Your task to perform on an android device: change alarm snooze length Image 0: 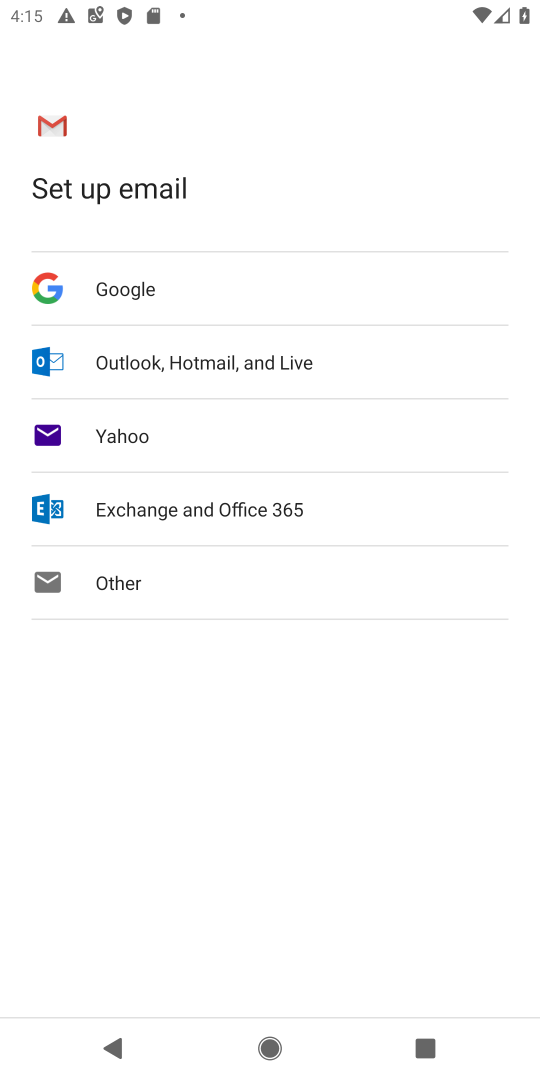
Step 0: press home button
Your task to perform on an android device: change alarm snooze length Image 1: 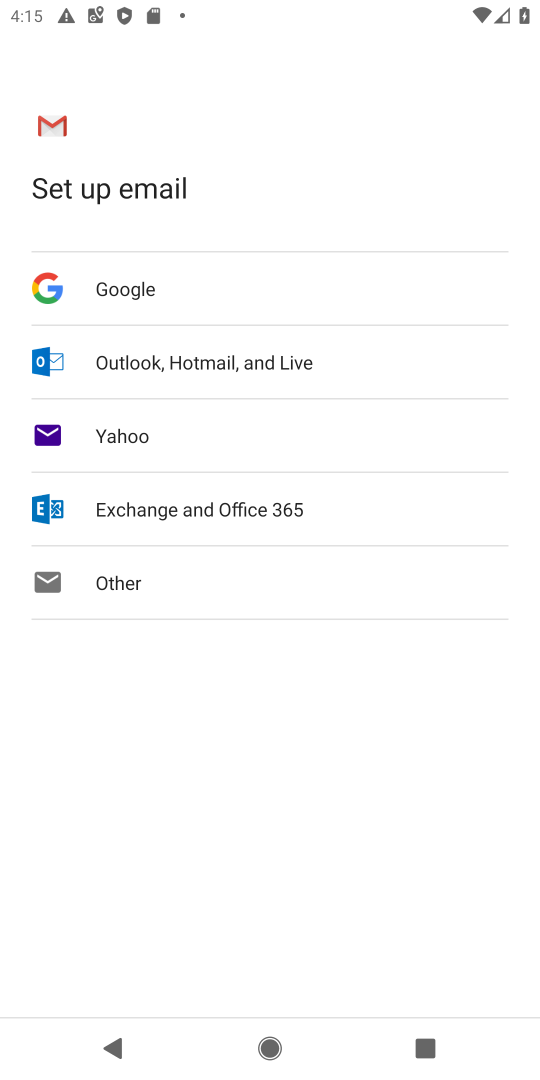
Step 1: press home button
Your task to perform on an android device: change alarm snooze length Image 2: 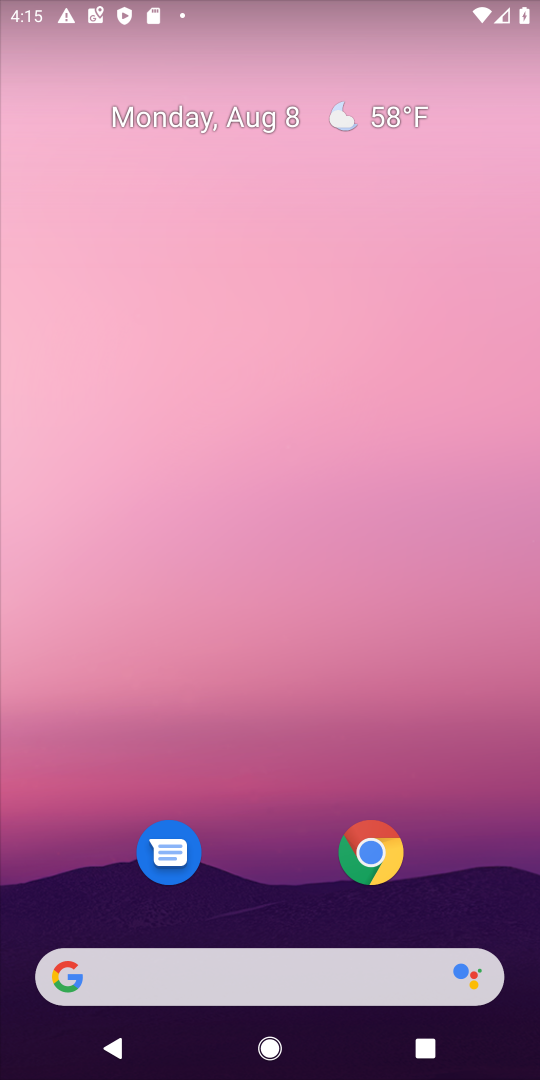
Step 2: drag from (263, 862) to (462, 67)
Your task to perform on an android device: change alarm snooze length Image 3: 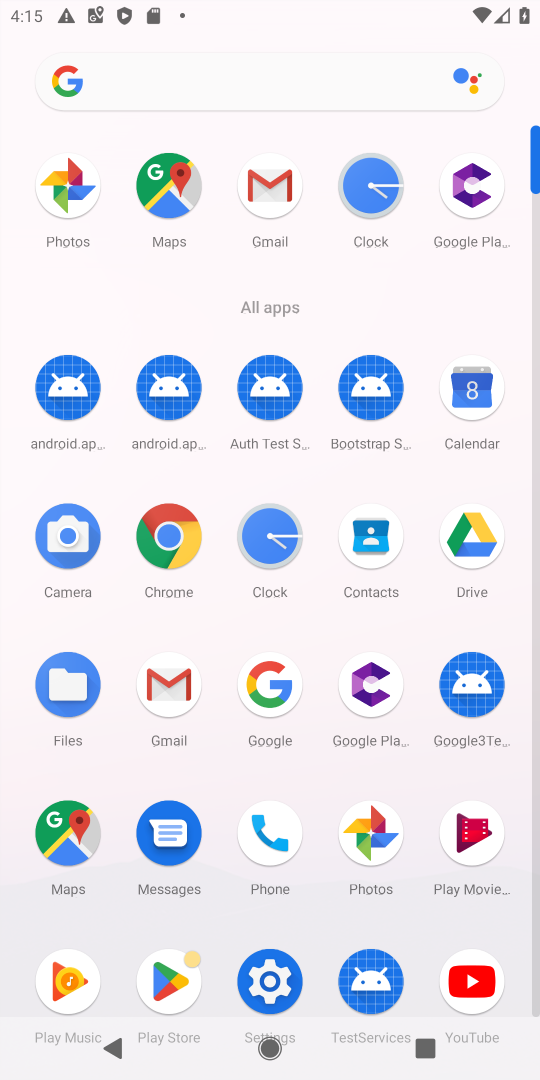
Step 3: click (268, 539)
Your task to perform on an android device: change alarm snooze length Image 4: 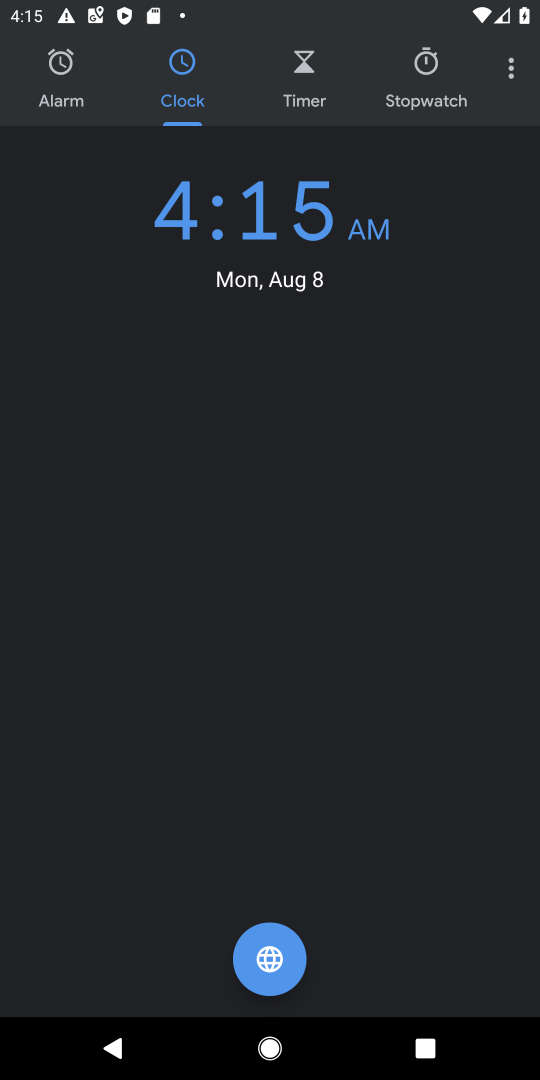
Step 4: click (519, 60)
Your task to perform on an android device: change alarm snooze length Image 5: 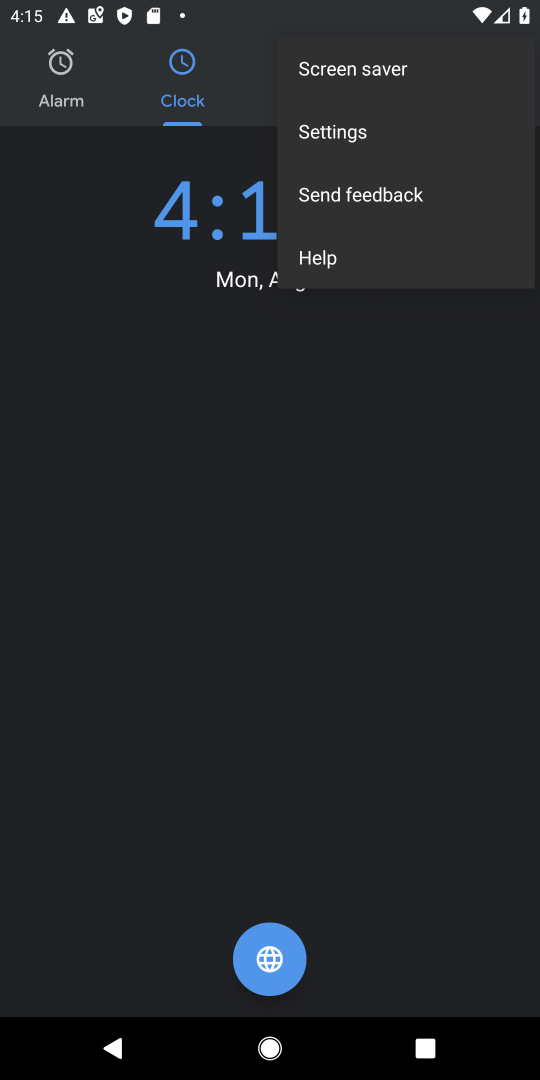
Step 5: click (369, 140)
Your task to perform on an android device: change alarm snooze length Image 6: 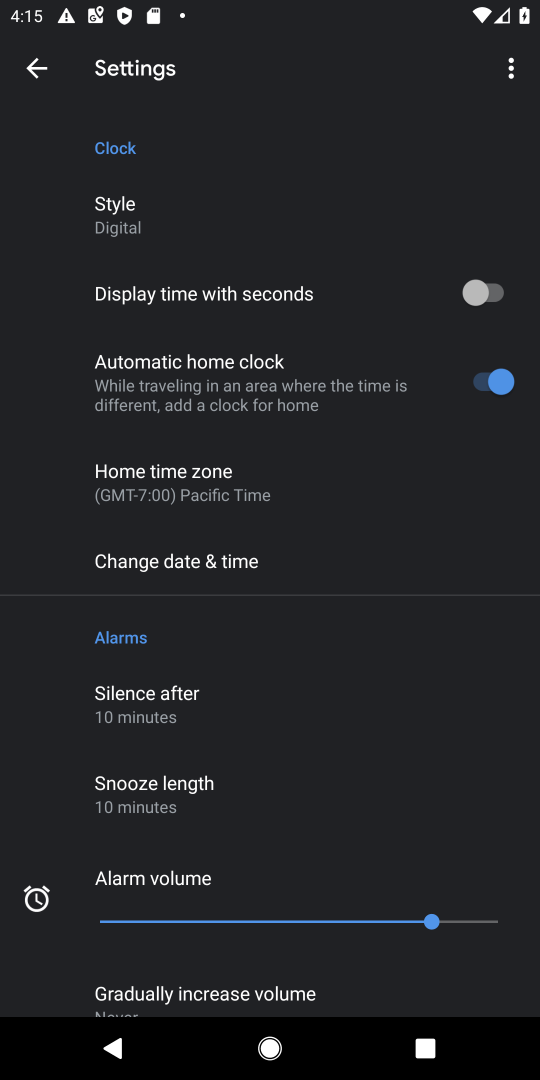
Step 6: click (158, 798)
Your task to perform on an android device: change alarm snooze length Image 7: 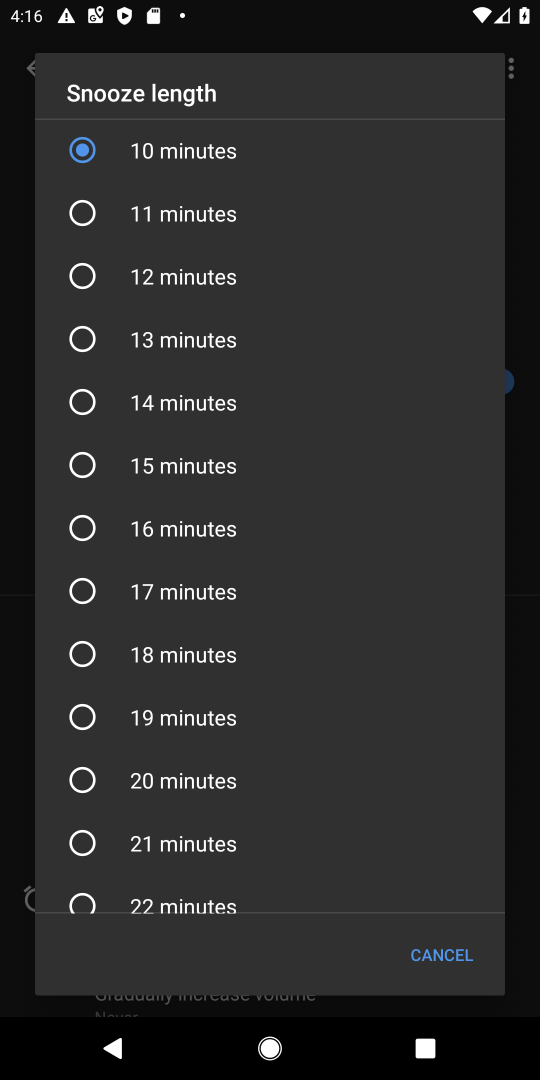
Step 7: click (153, 212)
Your task to perform on an android device: change alarm snooze length Image 8: 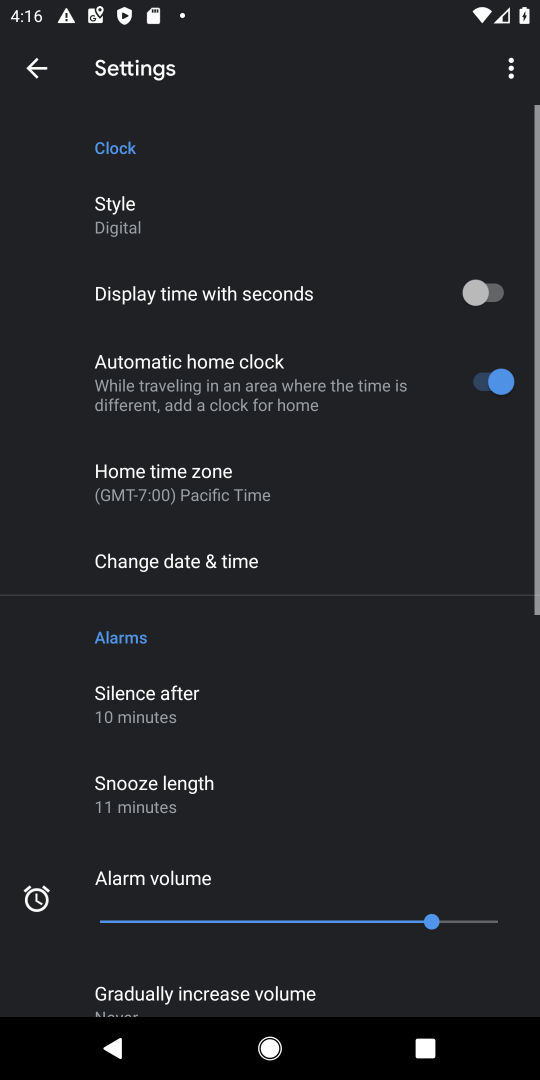
Step 8: task complete